Your task to perform on an android device: Clear the shopping cart on bestbuy.com. Search for corsair k70 on bestbuy.com, select the first entry, add it to the cart, then select checkout. Image 0: 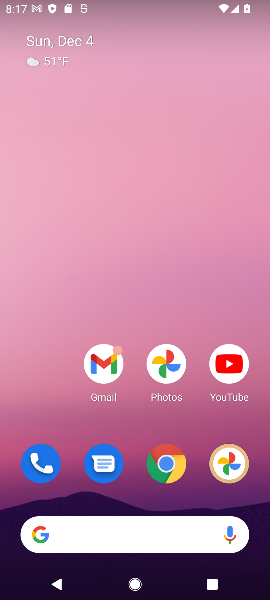
Step 0: click (129, 532)
Your task to perform on an android device: Clear the shopping cart on bestbuy.com. Search for corsair k70 on bestbuy.com, select the first entry, add it to the cart, then select checkout. Image 1: 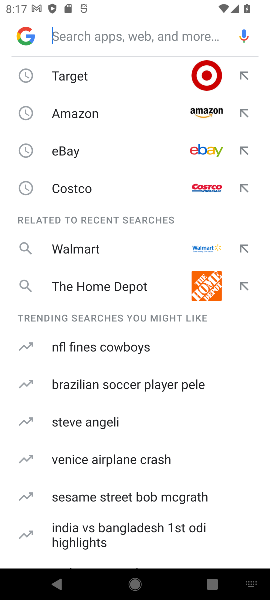
Step 1: type "bestbuy"
Your task to perform on an android device: Clear the shopping cart on bestbuy.com. Search for corsair k70 on bestbuy.com, select the first entry, add it to the cart, then select checkout. Image 2: 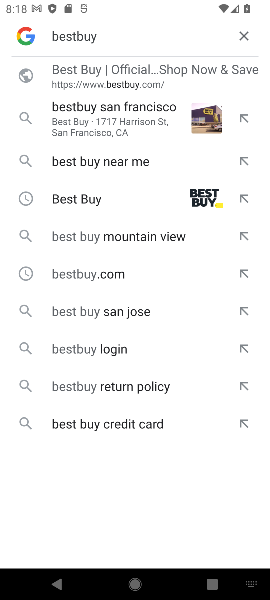
Step 2: click (151, 195)
Your task to perform on an android device: Clear the shopping cart on bestbuy.com. Search for corsair k70 on bestbuy.com, select the first entry, add it to the cart, then select checkout. Image 3: 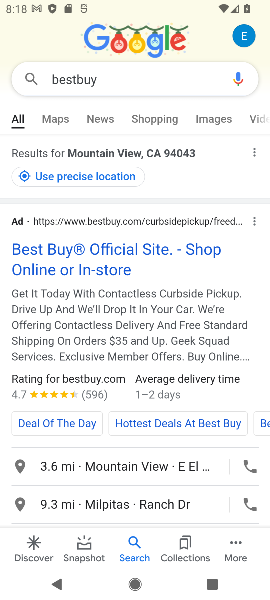
Step 3: click (136, 255)
Your task to perform on an android device: Clear the shopping cart on bestbuy.com. Search for corsair k70 on bestbuy.com, select the first entry, add it to the cart, then select checkout. Image 4: 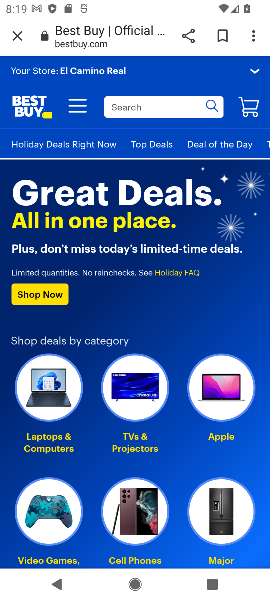
Step 4: task complete